Your task to perform on an android device: open chrome and create a bookmark for the current page Image 0: 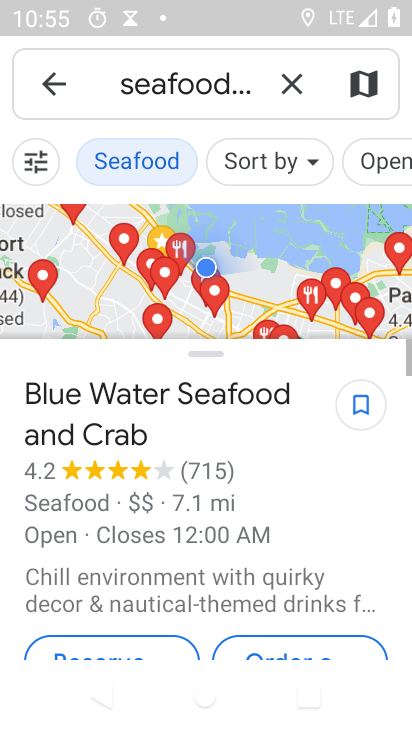
Step 0: press home button
Your task to perform on an android device: open chrome and create a bookmark for the current page Image 1: 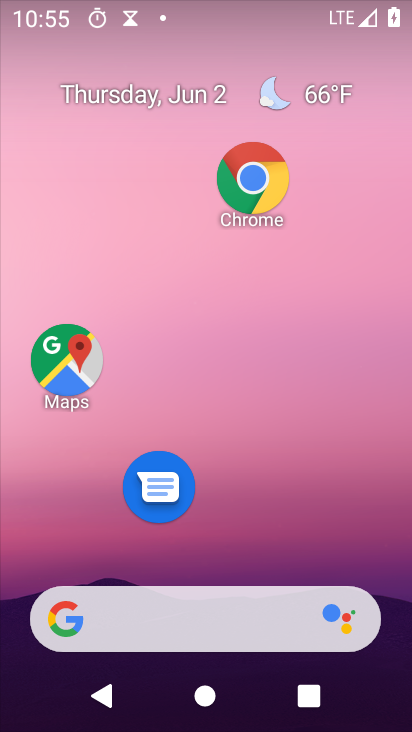
Step 1: click (252, 186)
Your task to perform on an android device: open chrome and create a bookmark for the current page Image 2: 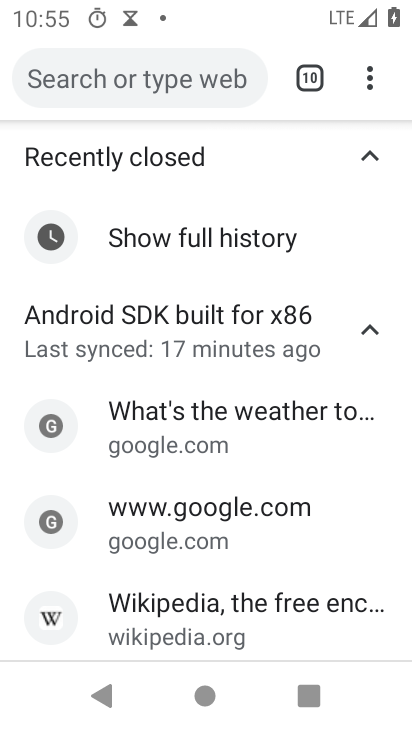
Step 2: click (367, 84)
Your task to perform on an android device: open chrome and create a bookmark for the current page Image 3: 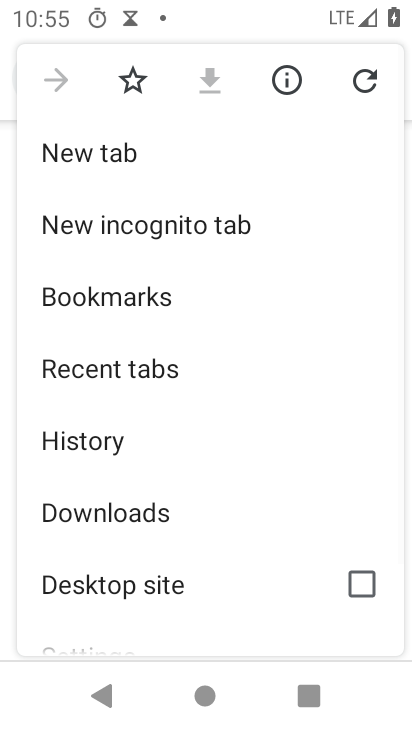
Step 3: click (136, 77)
Your task to perform on an android device: open chrome and create a bookmark for the current page Image 4: 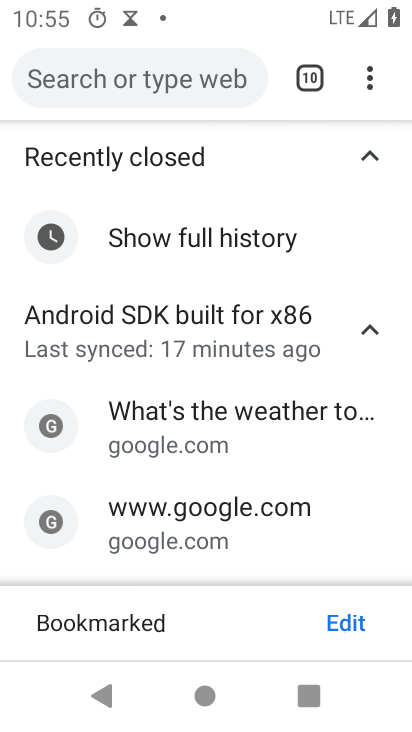
Step 4: task complete